Your task to perform on an android device: Turn off the flashlight Image 0: 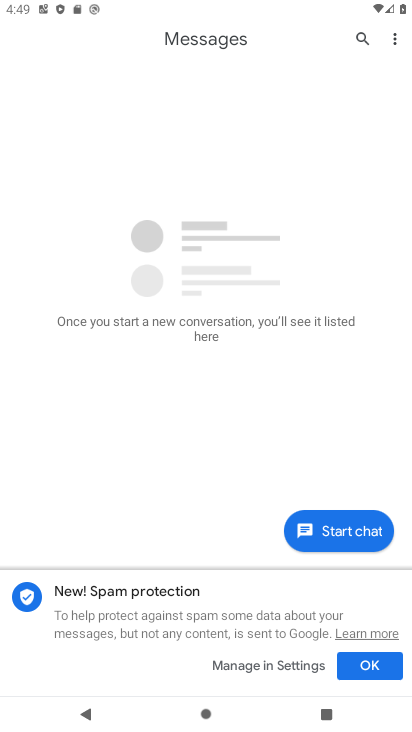
Step 0: press home button
Your task to perform on an android device: Turn off the flashlight Image 1: 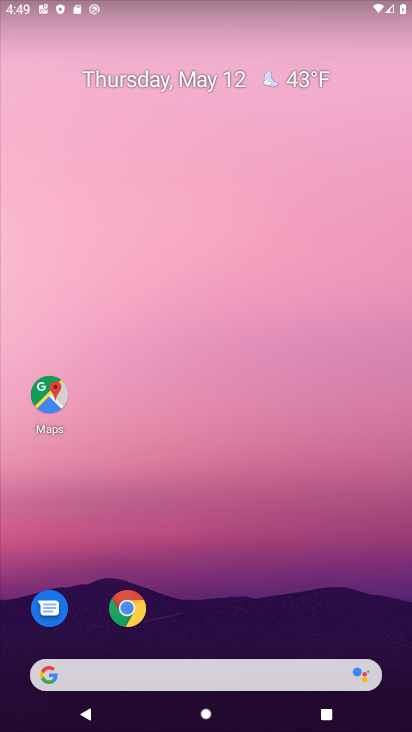
Step 1: task complete